Your task to perform on an android device: check the backup settings in the google photos Image 0: 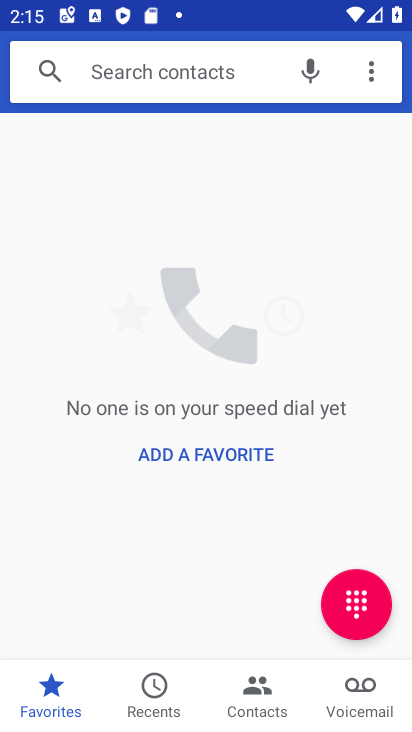
Step 0: press home button
Your task to perform on an android device: check the backup settings in the google photos Image 1: 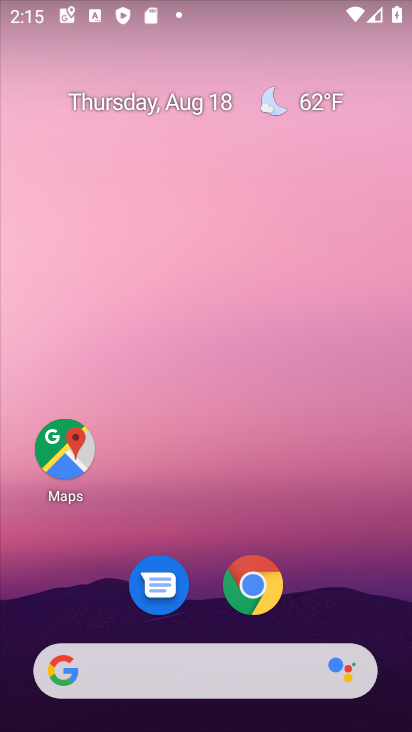
Step 1: click (243, 497)
Your task to perform on an android device: check the backup settings in the google photos Image 2: 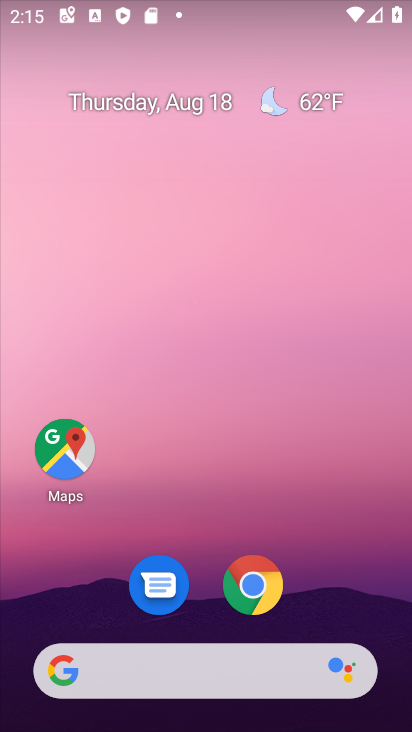
Step 2: drag from (288, 226) to (303, 14)
Your task to perform on an android device: check the backup settings in the google photos Image 3: 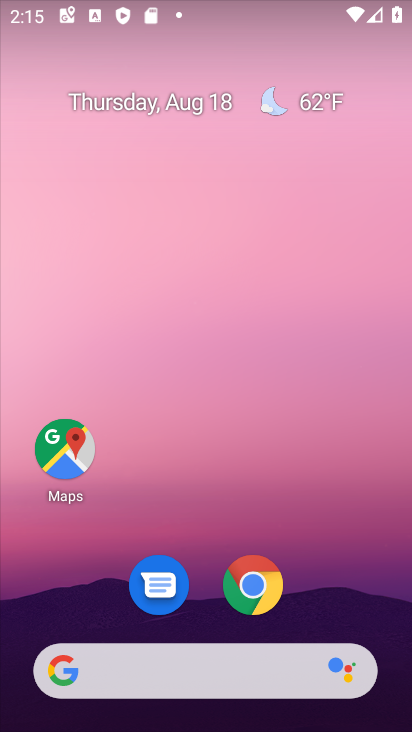
Step 3: drag from (202, 517) to (228, 0)
Your task to perform on an android device: check the backup settings in the google photos Image 4: 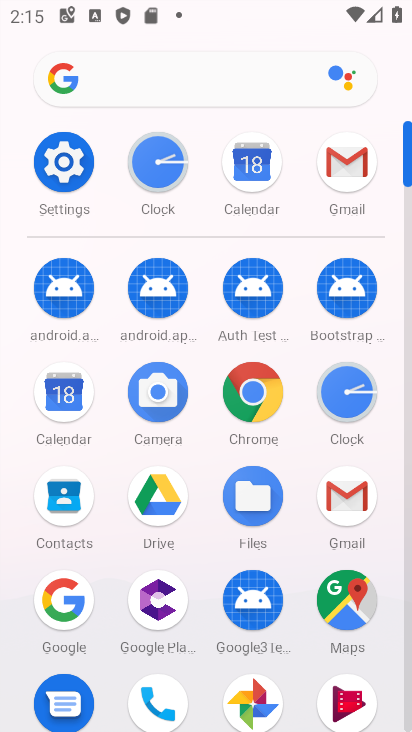
Step 4: click (260, 687)
Your task to perform on an android device: check the backup settings in the google photos Image 5: 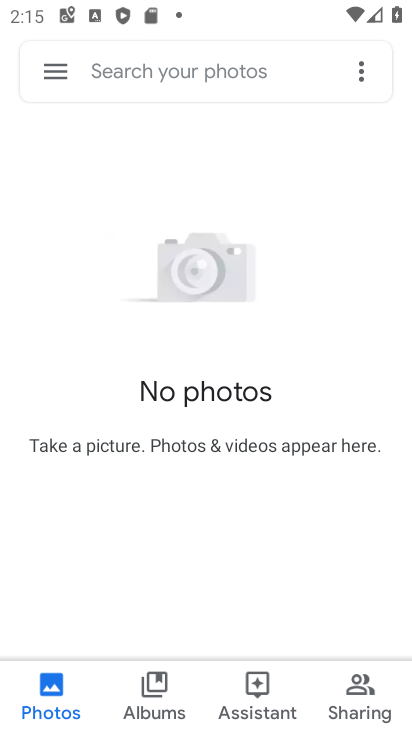
Step 5: click (61, 68)
Your task to perform on an android device: check the backup settings in the google photos Image 6: 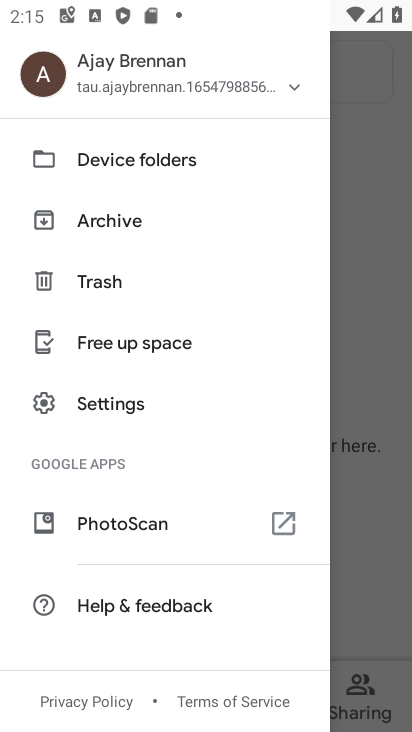
Step 6: click (95, 394)
Your task to perform on an android device: check the backup settings in the google photos Image 7: 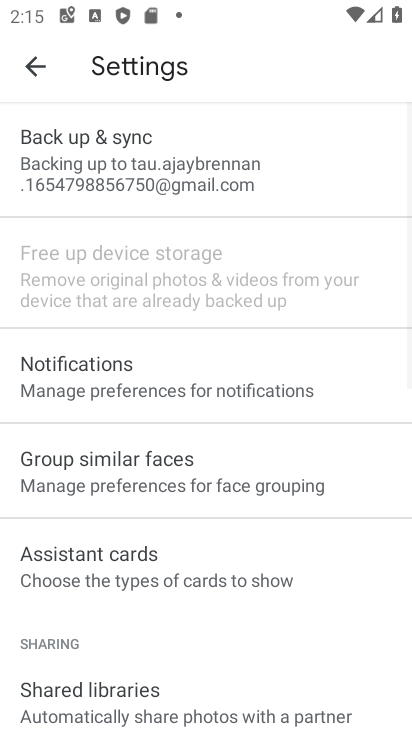
Step 7: click (124, 168)
Your task to perform on an android device: check the backup settings in the google photos Image 8: 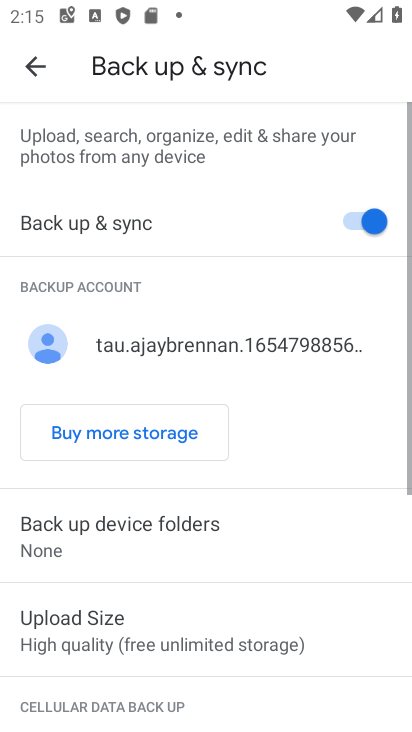
Step 8: task complete